Your task to perform on an android device: Open ESPN.com Image 0: 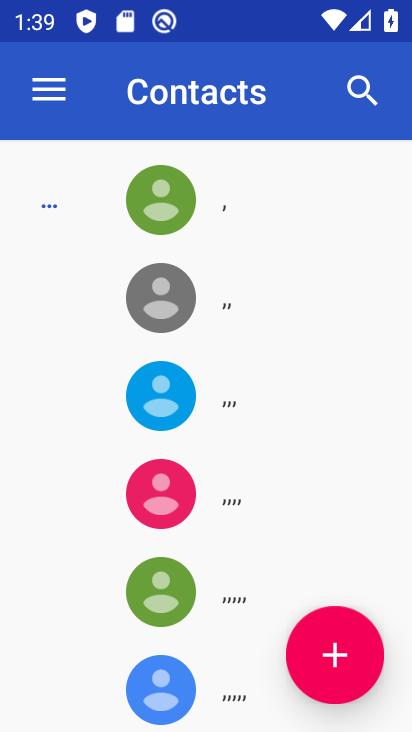
Step 0: press home button
Your task to perform on an android device: Open ESPN.com Image 1: 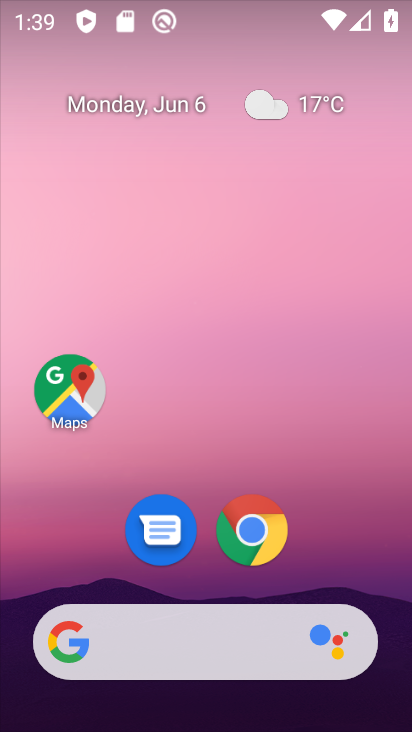
Step 1: click (251, 530)
Your task to perform on an android device: Open ESPN.com Image 2: 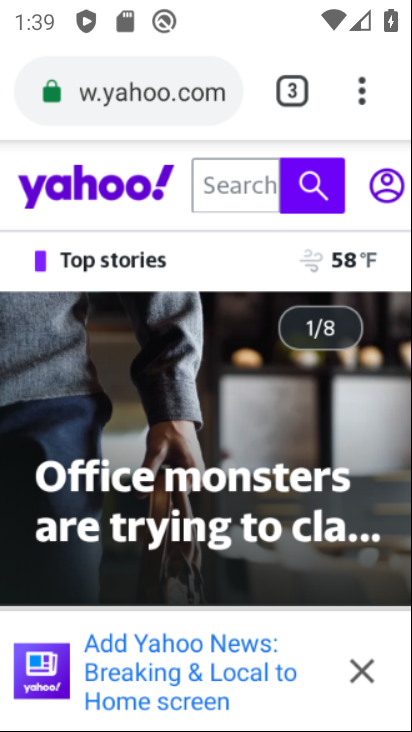
Step 2: click (342, 84)
Your task to perform on an android device: Open ESPN.com Image 3: 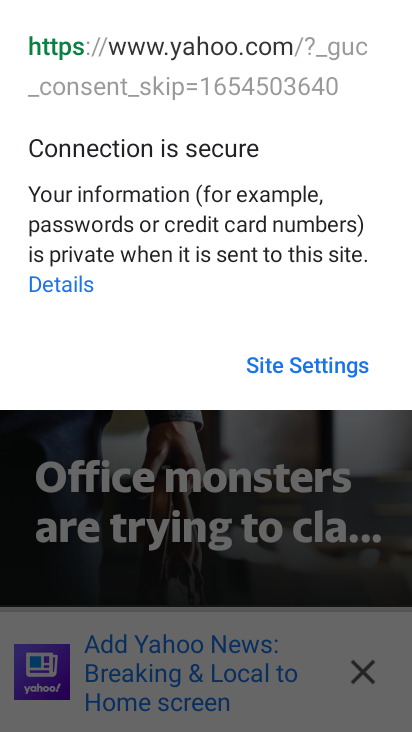
Step 3: press back button
Your task to perform on an android device: Open ESPN.com Image 4: 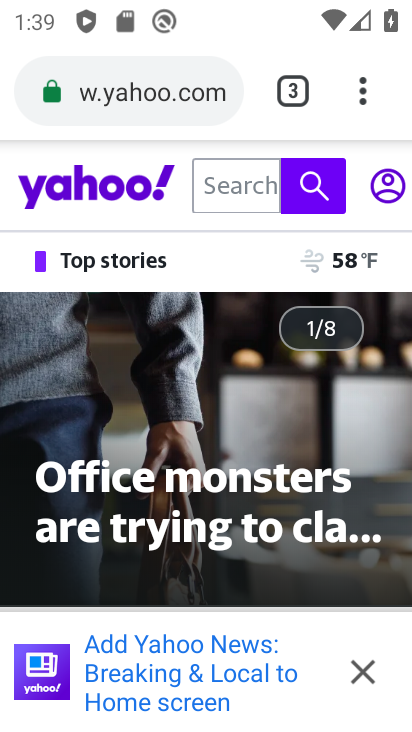
Step 4: click (373, 68)
Your task to perform on an android device: Open ESPN.com Image 5: 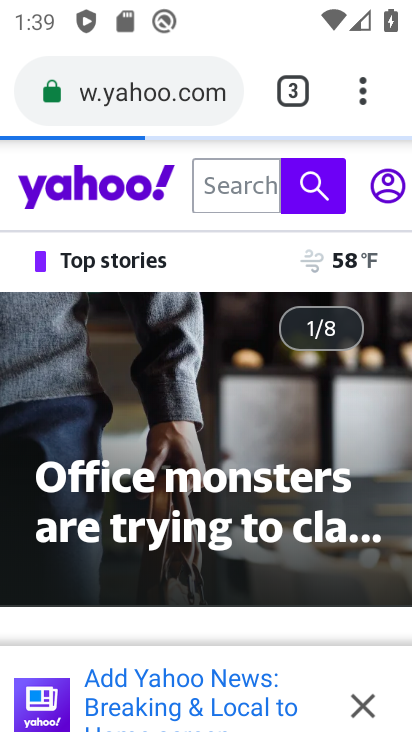
Step 5: click (359, 90)
Your task to perform on an android device: Open ESPN.com Image 6: 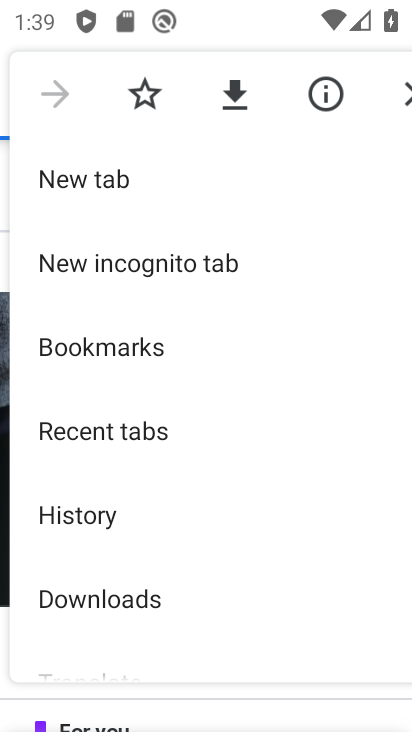
Step 6: click (134, 167)
Your task to perform on an android device: Open ESPN.com Image 7: 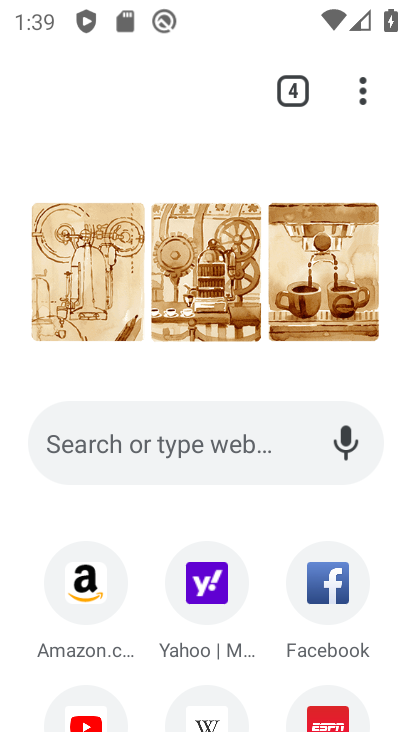
Step 7: drag from (264, 584) to (303, 288)
Your task to perform on an android device: Open ESPN.com Image 8: 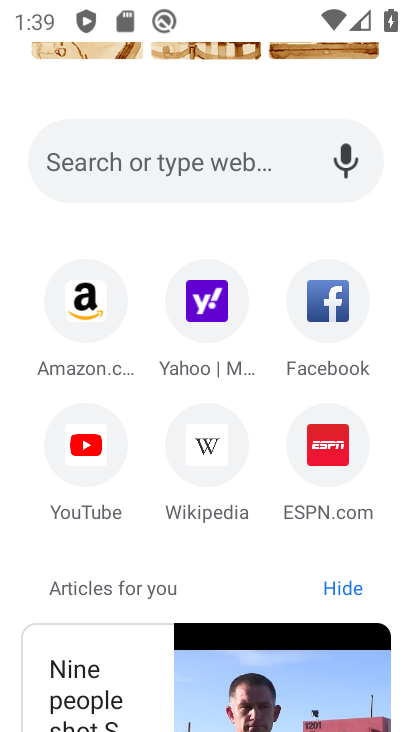
Step 8: click (317, 448)
Your task to perform on an android device: Open ESPN.com Image 9: 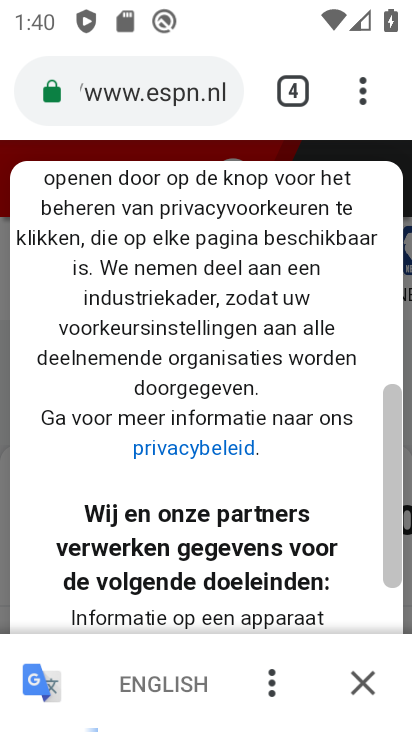
Step 9: task complete